Your task to perform on an android device: check google app version Image 0: 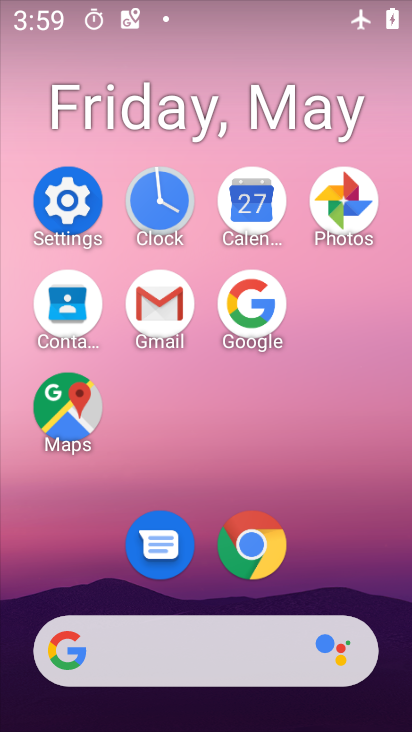
Step 0: click (260, 309)
Your task to perform on an android device: check google app version Image 1: 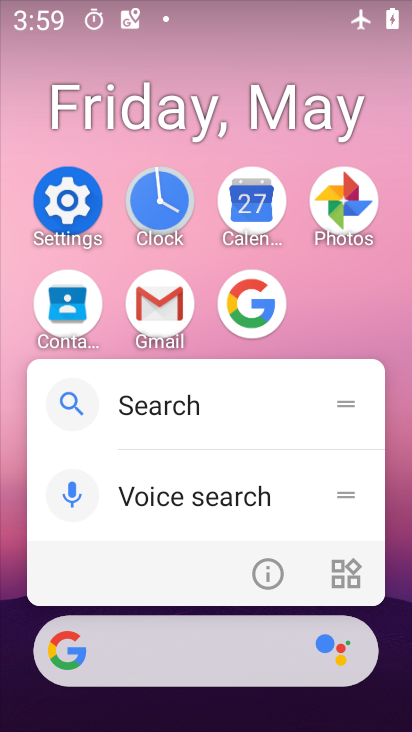
Step 1: click (285, 574)
Your task to perform on an android device: check google app version Image 2: 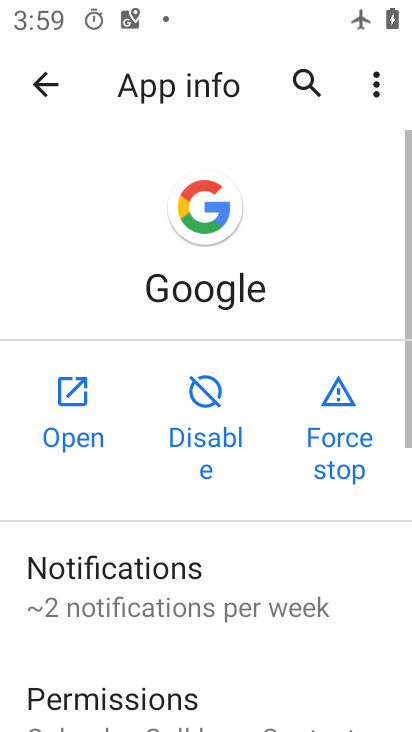
Step 2: drag from (252, 569) to (242, 97)
Your task to perform on an android device: check google app version Image 3: 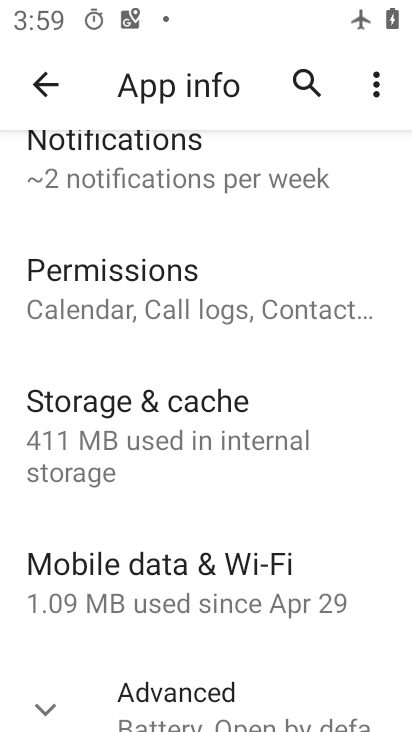
Step 3: drag from (216, 567) to (241, 156)
Your task to perform on an android device: check google app version Image 4: 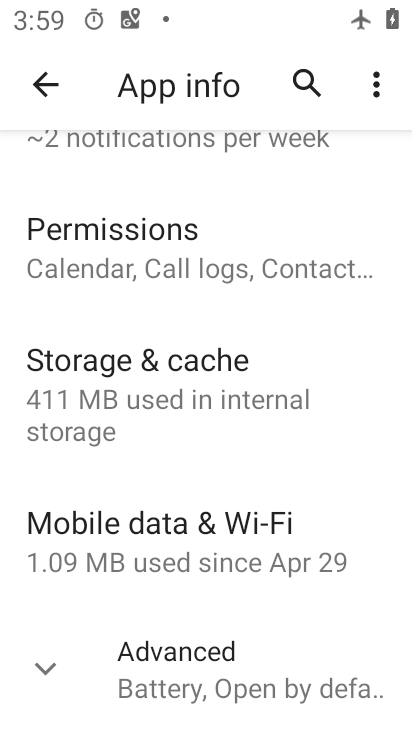
Step 4: click (298, 669)
Your task to perform on an android device: check google app version Image 5: 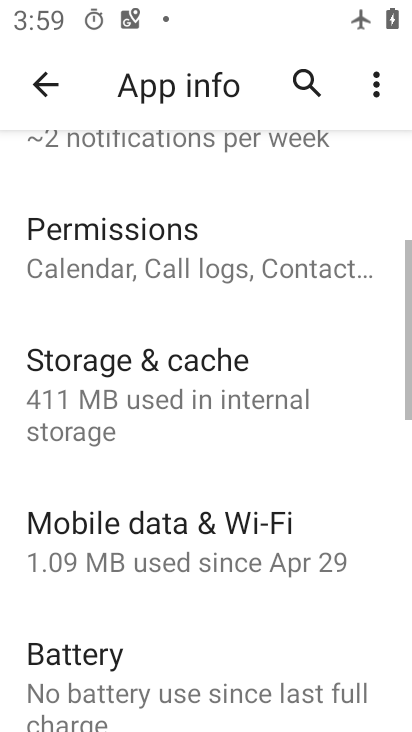
Step 5: task complete